Your task to perform on an android device: What's on my calendar tomorrow? Image 0: 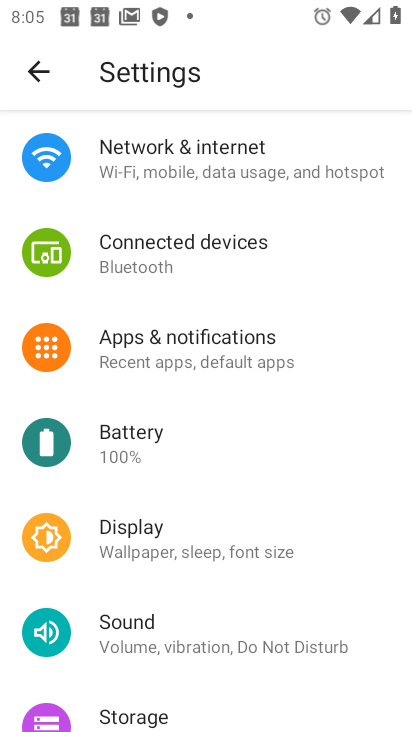
Step 0: press home button
Your task to perform on an android device: What's on my calendar tomorrow? Image 1: 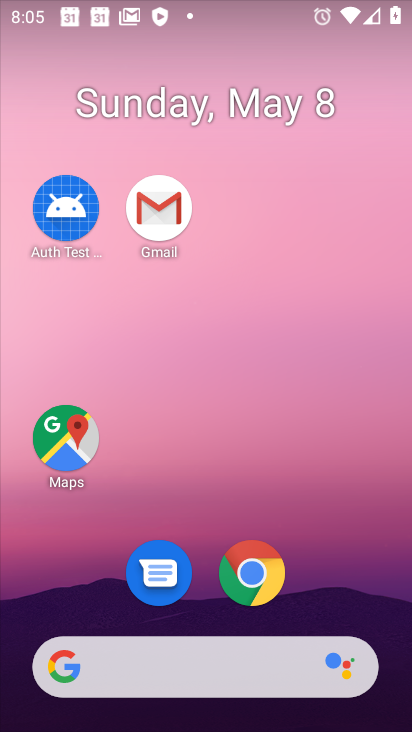
Step 1: drag from (351, 614) to (127, 30)
Your task to perform on an android device: What's on my calendar tomorrow? Image 2: 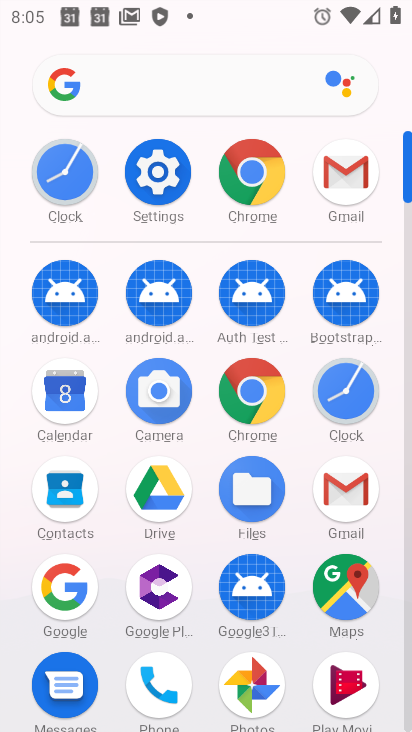
Step 2: click (55, 388)
Your task to perform on an android device: What's on my calendar tomorrow? Image 3: 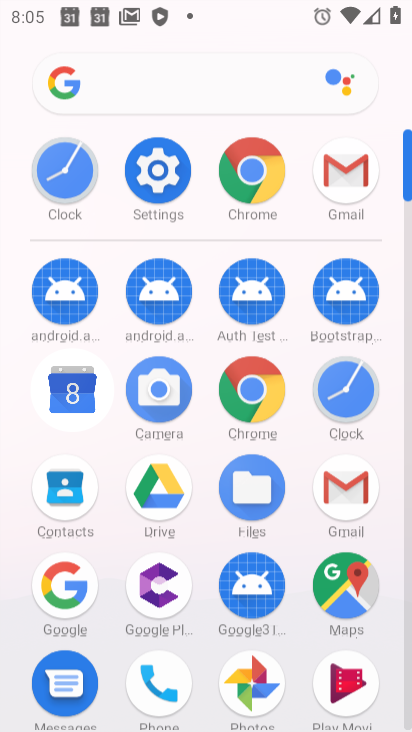
Step 3: click (55, 388)
Your task to perform on an android device: What's on my calendar tomorrow? Image 4: 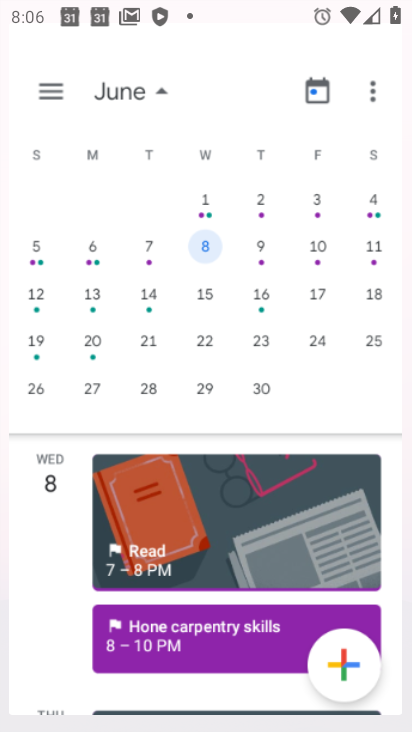
Step 4: click (55, 388)
Your task to perform on an android device: What's on my calendar tomorrow? Image 5: 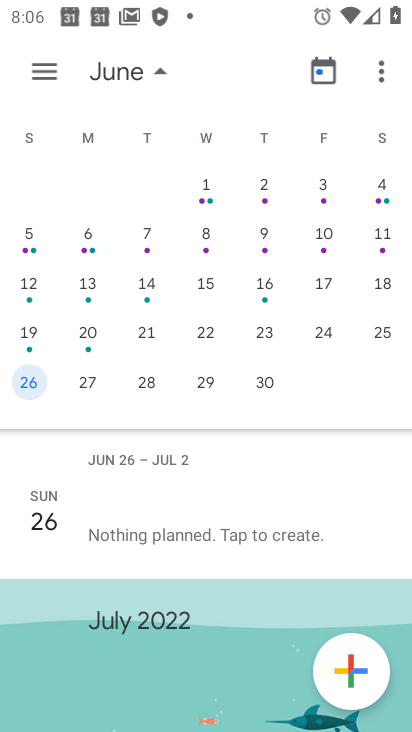
Step 5: task complete